Your task to perform on an android device: delete the emails in spam in the gmail app Image 0: 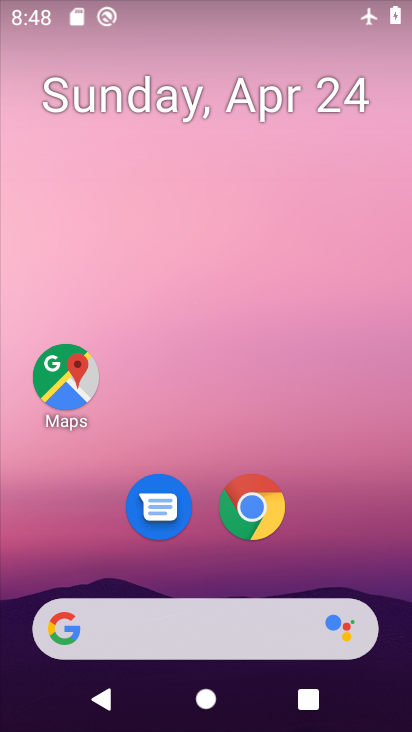
Step 0: drag from (346, 561) to (288, 105)
Your task to perform on an android device: delete the emails in spam in the gmail app Image 1: 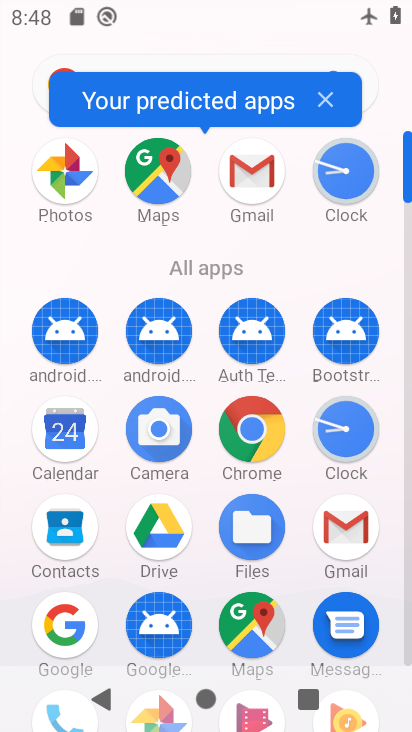
Step 1: click (261, 182)
Your task to perform on an android device: delete the emails in spam in the gmail app Image 2: 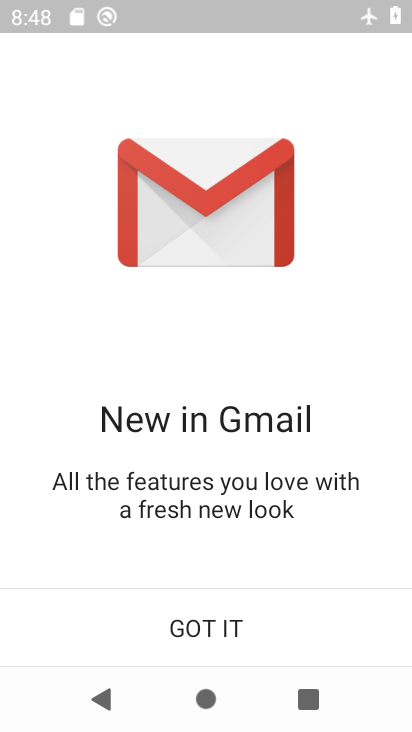
Step 2: click (234, 637)
Your task to perform on an android device: delete the emails in spam in the gmail app Image 3: 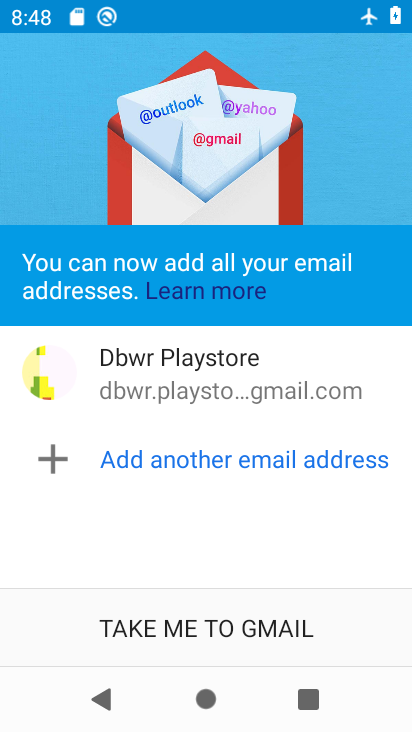
Step 3: click (245, 623)
Your task to perform on an android device: delete the emails in spam in the gmail app Image 4: 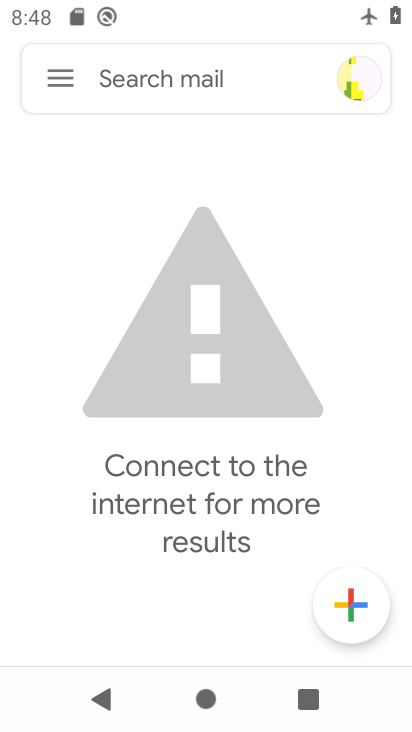
Step 4: click (51, 62)
Your task to perform on an android device: delete the emails in spam in the gmail app Image 5: 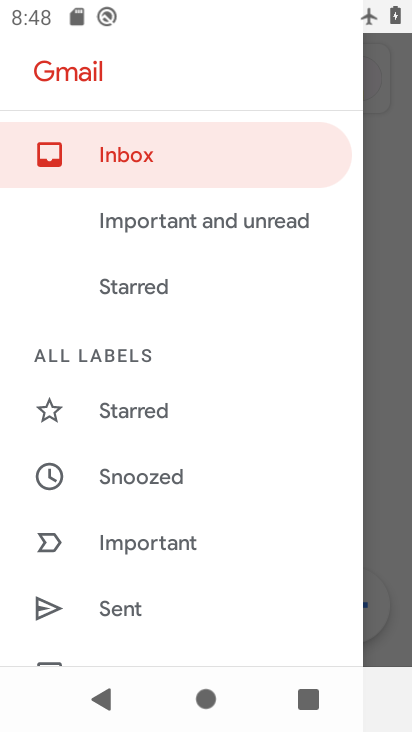
Step 5: drag from (180, 579) to (167, 344)
Your task to perform on an android device: delete the emails in spam in the gmail app Image 6: 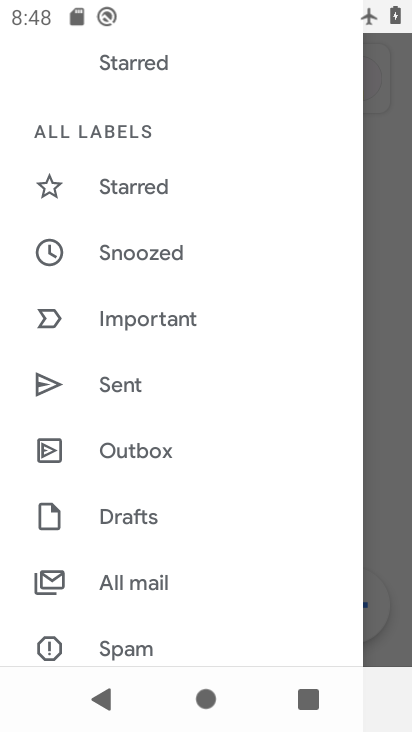
Step 6: click (150, 655)
Your task to perform on an android device: delete the emails in spam in the gmail app Image 7: 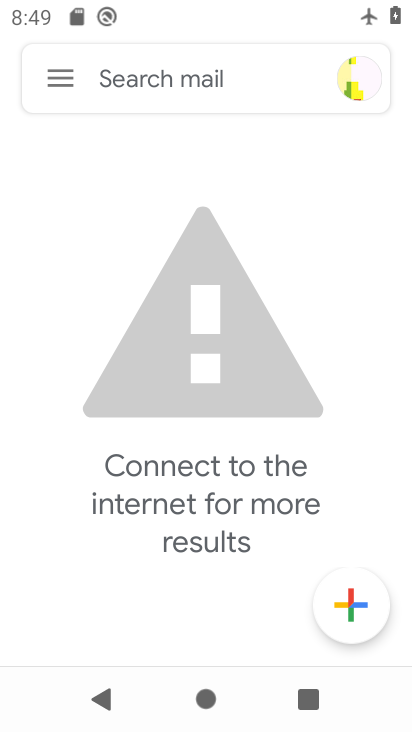
Step 7: task complete